Your task to perform on an android device: What's the weather? Image 0: 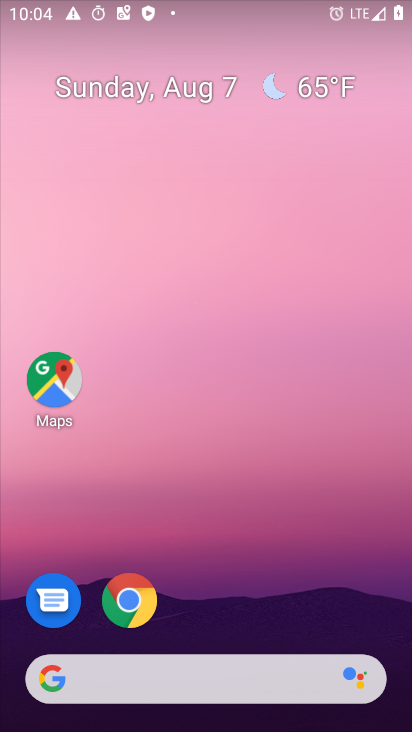
Step 0: click (220, 611)
Your task to perform on an android device: What's the weather? Image 1: 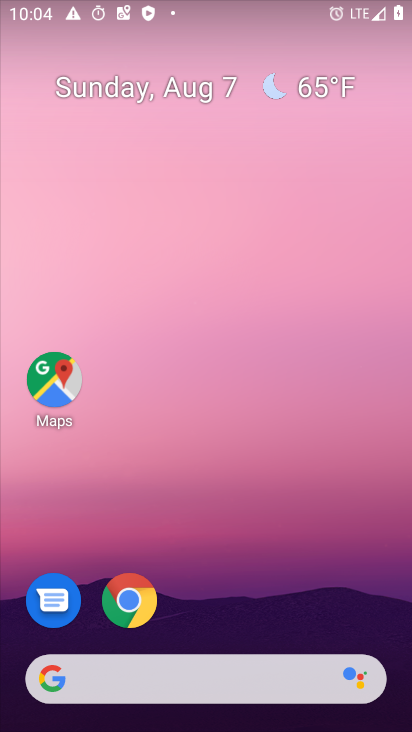
Step 1: click (168, 672)
Your task to perform on an android device: What's the weather? Image 2: 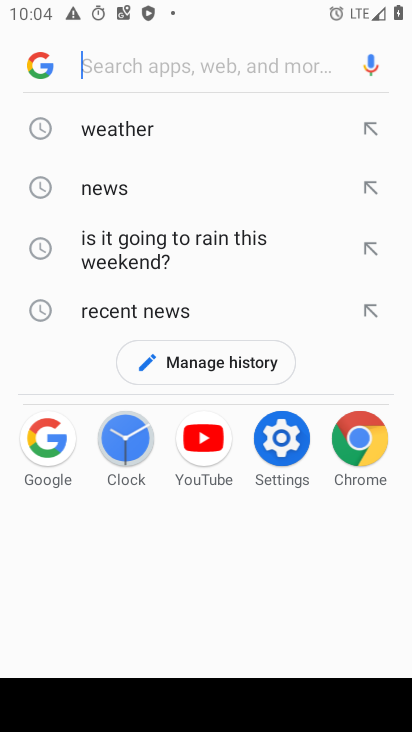
Step 2: click (115, 128)
Your task to perform on an android device: What's the weather? Image 3: 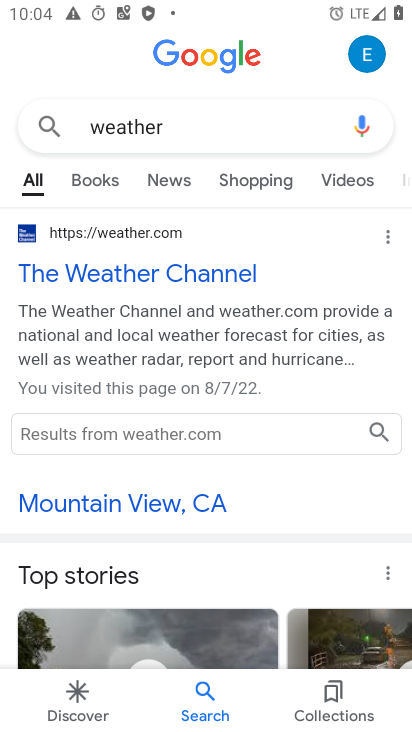
Step 3: click (119, 500)
Your task to perform on an android device: What's the weather? Image 4: 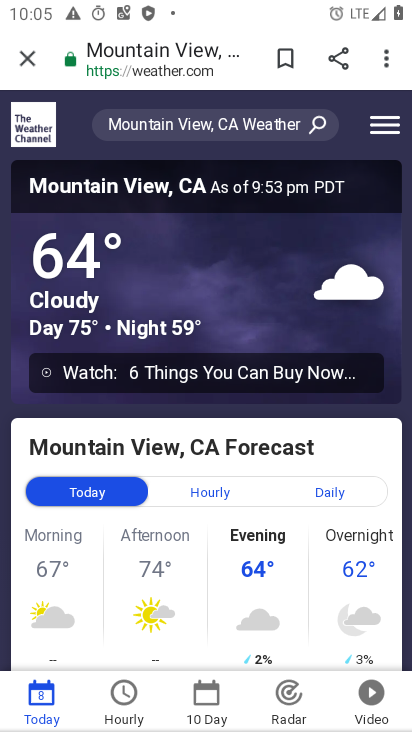
Step 4: task complete